Your task to perform on an android device: Open eBay Image 0: 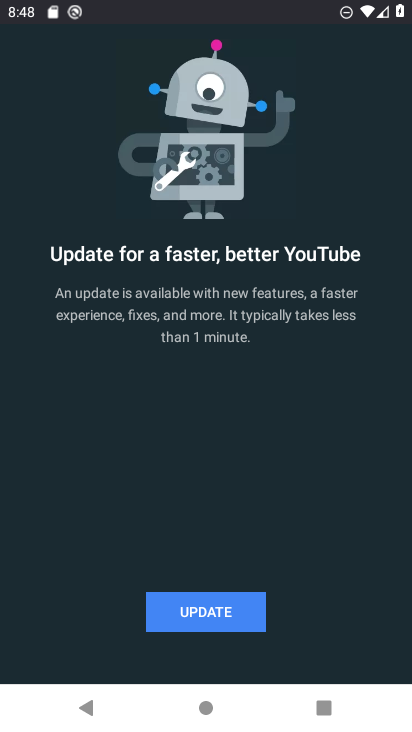
Step 0: press home button
Your task to perform on an android device: Open eBay Image 1: 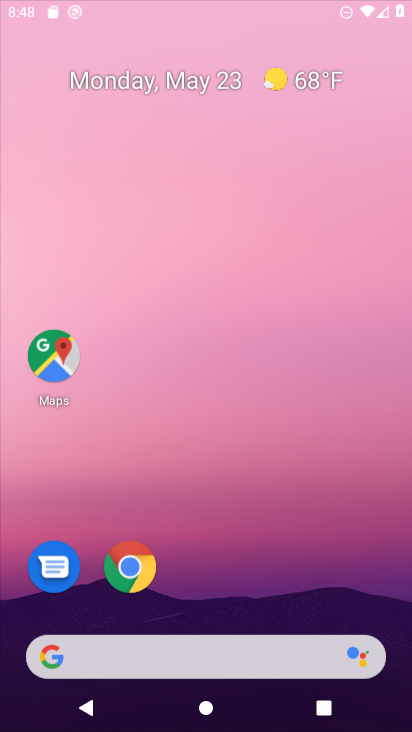
Step 1: drag from (241, 622) to (371, 2)
Your task to perform on an android device: Open eBay Image 2: 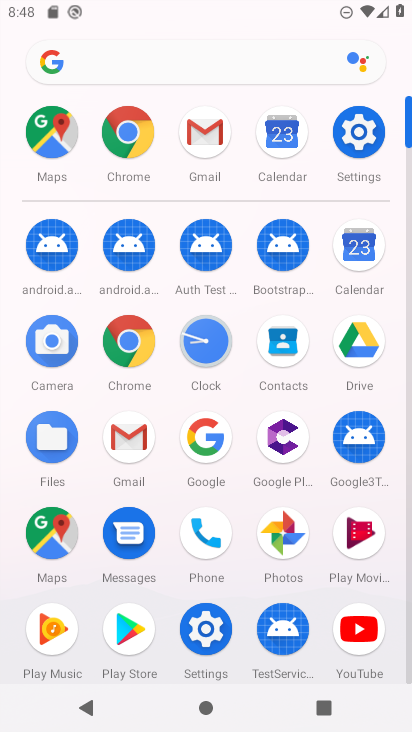
Step 2: click (137, 341)
Your task to perform on an android device: Open eBay Image 3: 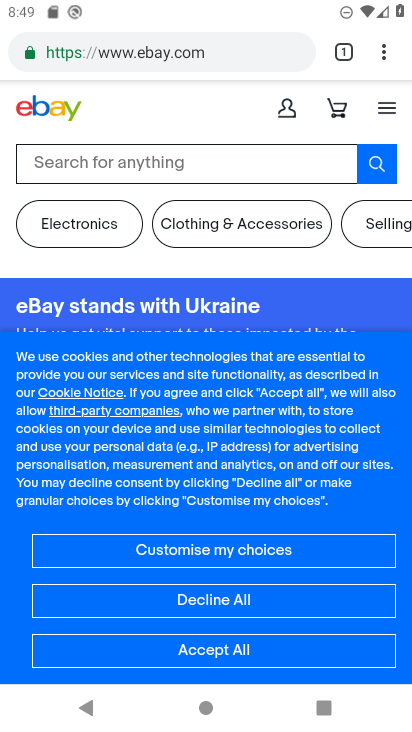
Step 3: click (347, 55)
Your task to perform on an android device: Open eBay Image 4: 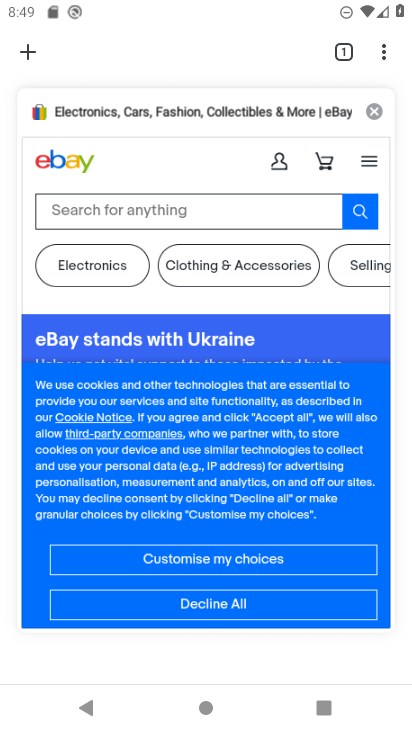
Step 4: click (199, 169)
Your task to perform on an android device: Open eBay Image 5: 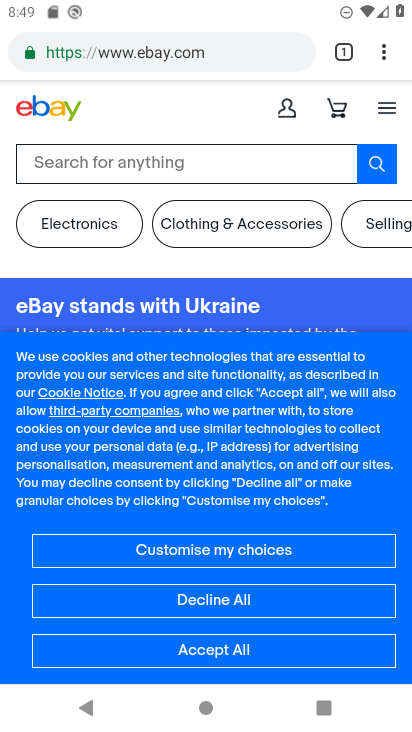
Step 5: task complete